Your task to perform on an android device: Open Maps and search for coffee Image 0: 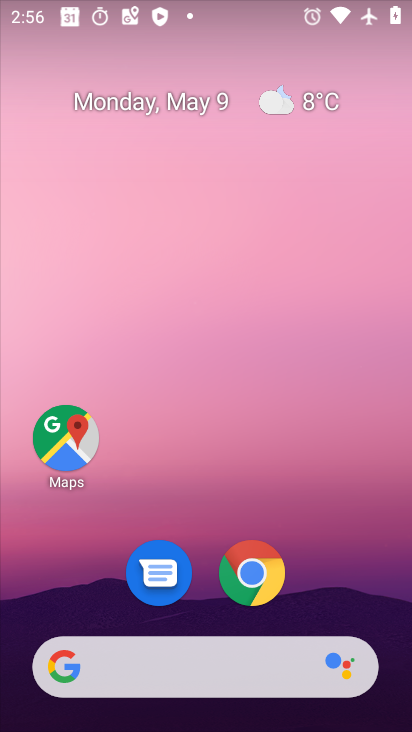
Step 0: drag from (165, 674) to (307, 311)
Your task to perform on an android device: Open Maps and search for coffee Image 1: 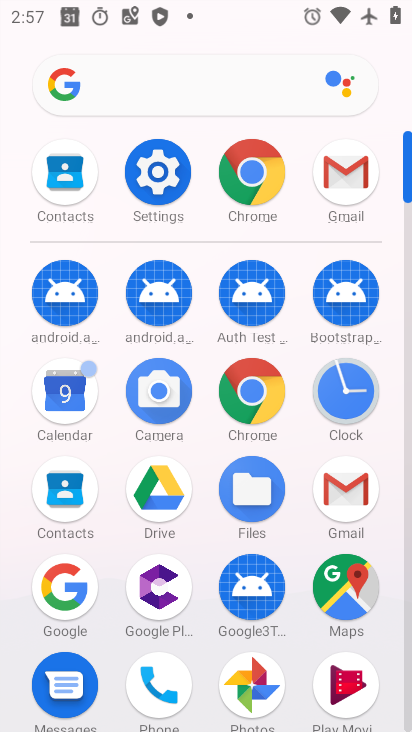
Step 1: click (343, 601)
Your task to perform on an android device: Open Maps and search for coffee Image 2: 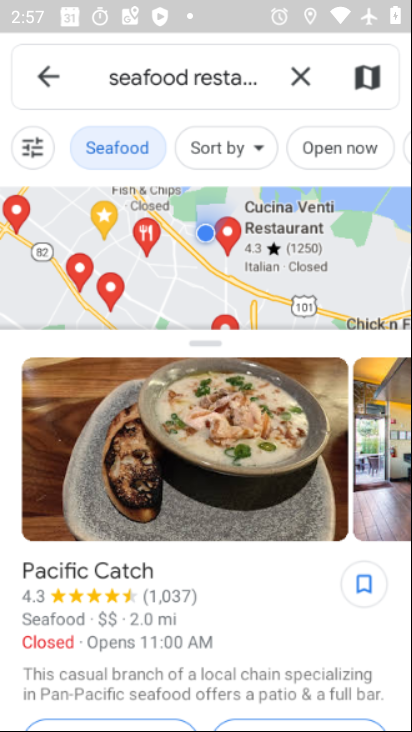
Step 2: click (303, 67)
Your task to perform on an android device: Open Maps and search for coffee Image 3: 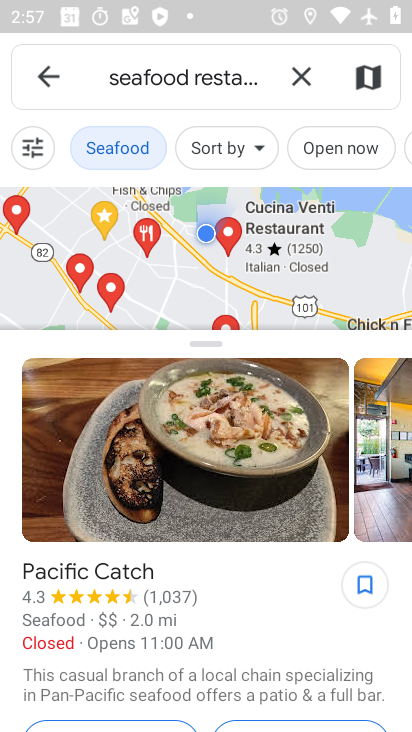
Step 3: click (298, 81)
Your task to perform on an android device: Open Maps and search for coffee Image 4: 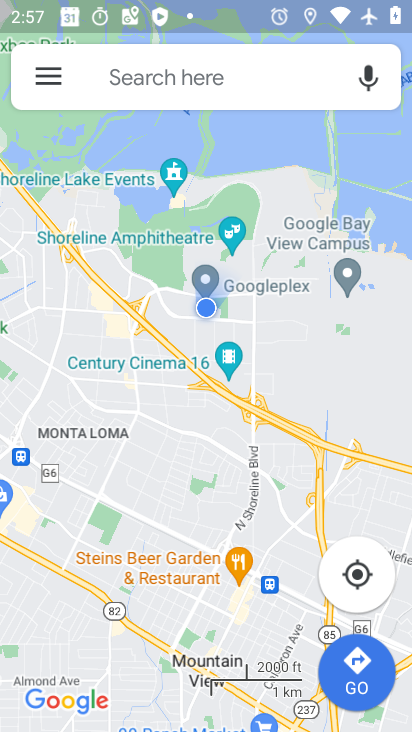
Step 4: click (151, 78)
Your task to perform on an android device: Open Maps and search for coffee Image 5: 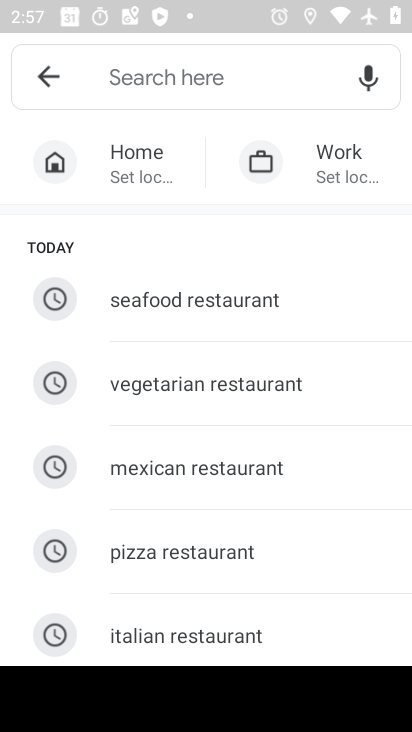
Step 5: drag from (179, 514) to (245, 437)
Your task to perform on an android device: Open Maps and search for coffee Image 6: 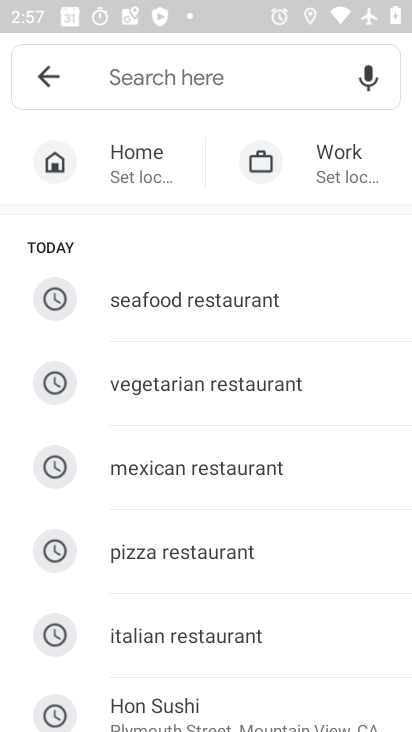
Step 6: click (149, 77)
Your task to perform on an android device: Open Maps and search for coffee Image 7: 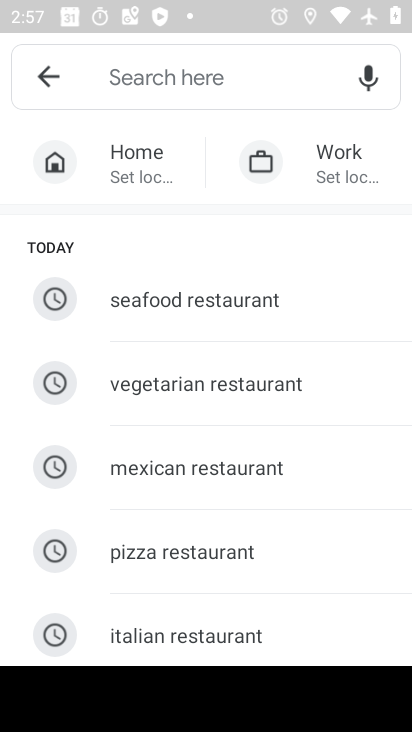
Step 7: type "coffee"
Your task to perform on an android device: Open Maps and search for coffee Image 8: 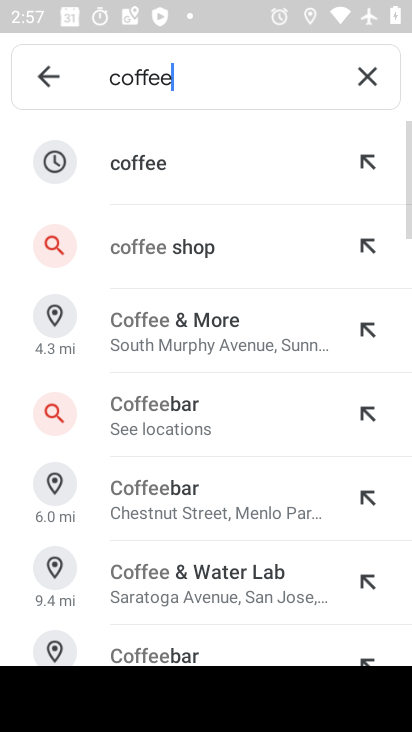
Step 8: click (153, 167)
Your task to perform on an android device: Open Maps and search for coffee Image 9: 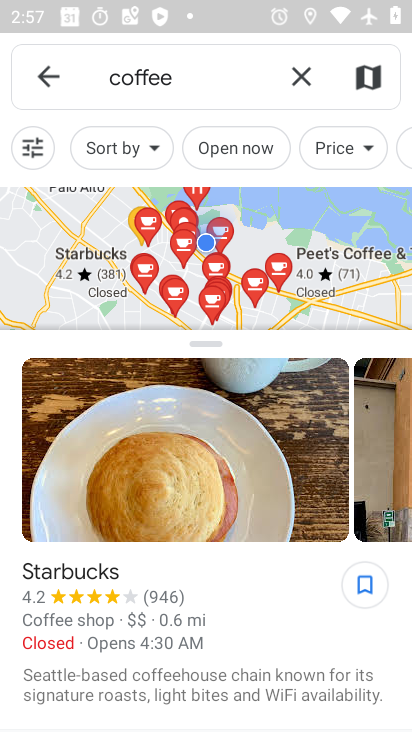
Step 9: task complete